Your task to perform on an android device: change notification settings in the gmail app Image 0: 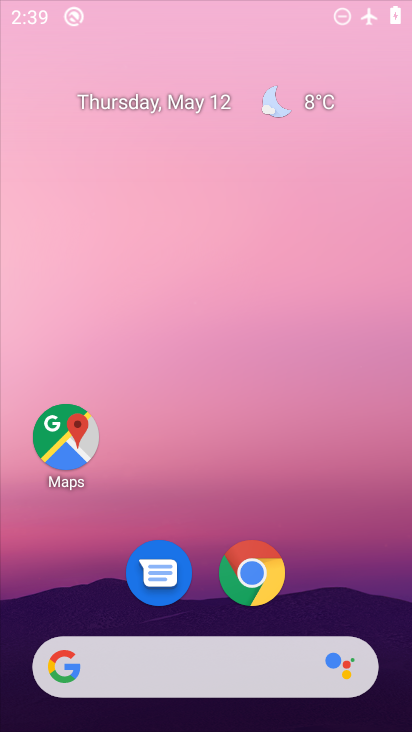
Step 0: click (101, 115)
Your task to perform on an android device: change notification settings in the gmail app Image 1: 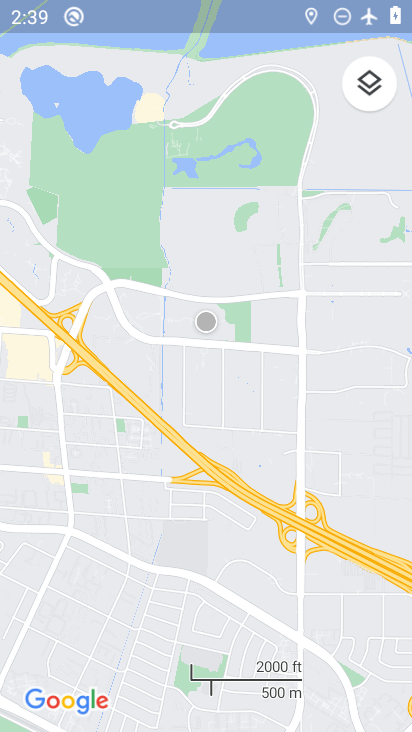
Step 1: press back button
Your task to perform on an android device: change notification settings in the gmail app Image 2: 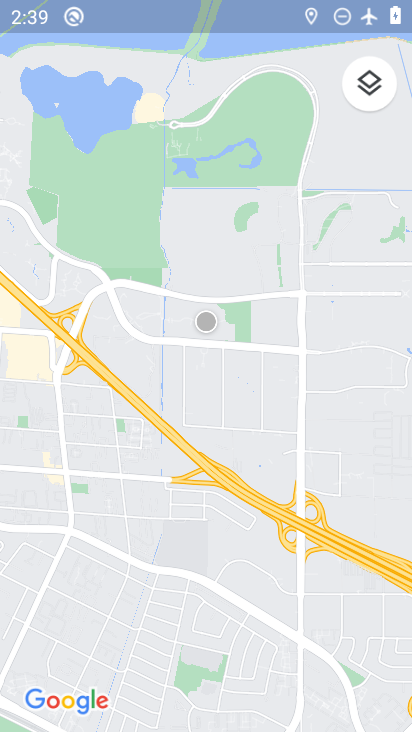
Step 2: press back button
Your task to perform on an android device: change notification settings in the gmail app Image 3: 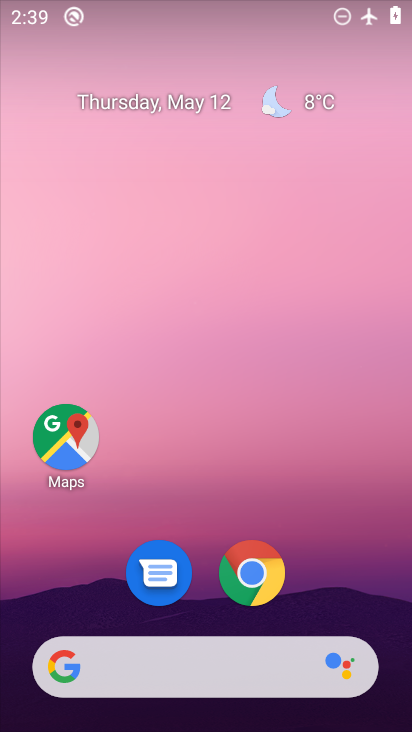
Step 3: drag from (355, 644) to (118, 175)
Your task to perform on an android device: change notification settings in the gmail app Image 4: 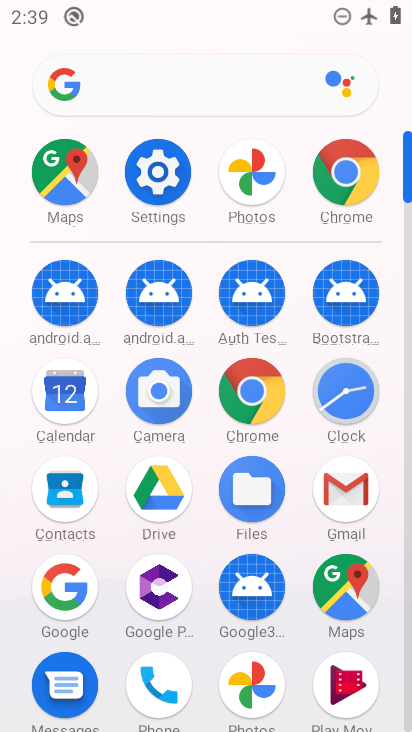
Step 4: click (152, 180)
Your task to perform on an android device: change notification settings in the gmail app Image 5: 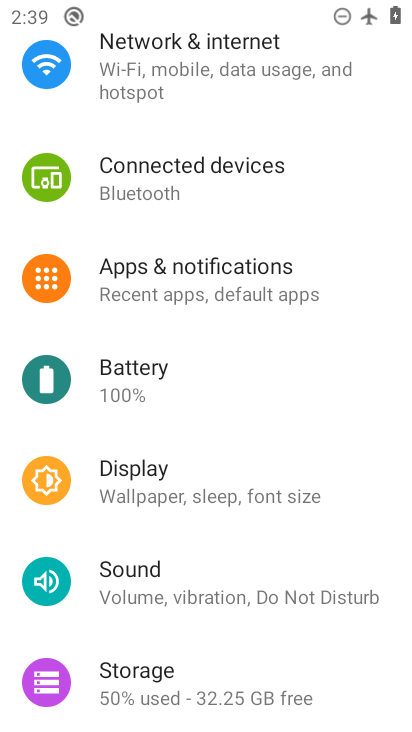
Step 5: click (181, 63)
Your task to perform on an android device: change notification settings in the gmail app Image 6: 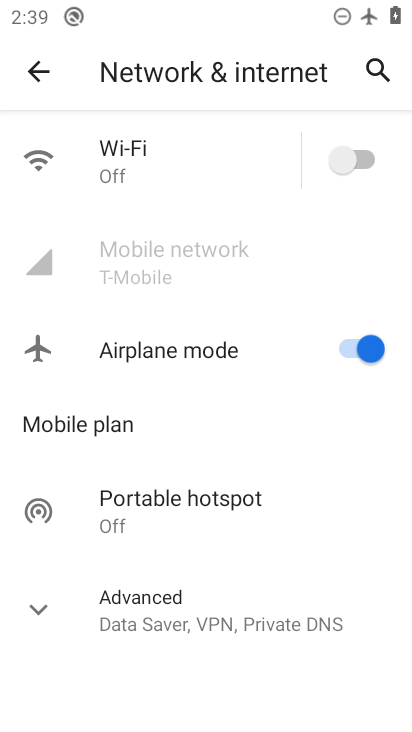
Step 6: click (361, 348)
Your task to perform on an android device: change notification settings in the gmail app Image 7: 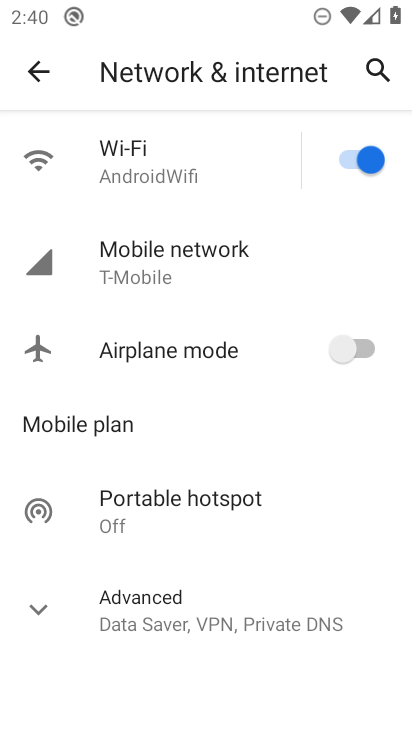
Step 7: press back button
Your task to perform on an android device: change notification settings in the gmail app Image 8: 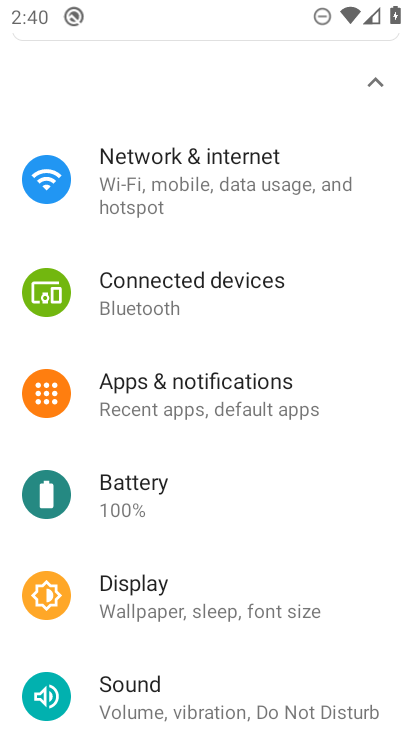
Step 8: click (169, 390)
Your task to perform on an android device: change notification settings in the gmail app Image 9: 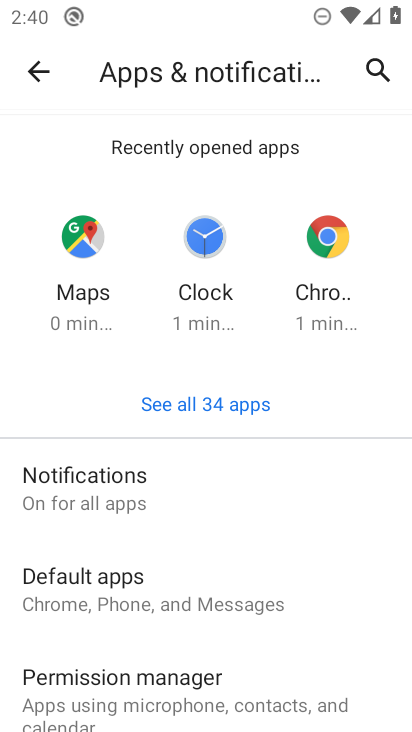
Step 9: click (102, 471)
Your task to perform on an android device: change notification settings in the gmail app Image 10: 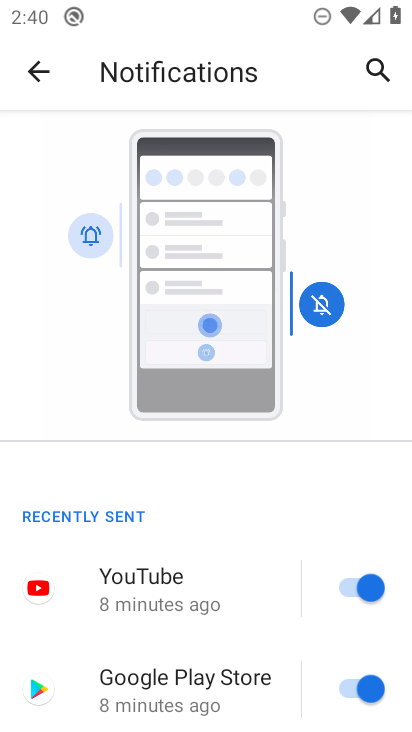
Step 10: drag from (218, 601) to (154, 132)
Your task to perform on an android device: change notification settings in the gmail app Image 11: 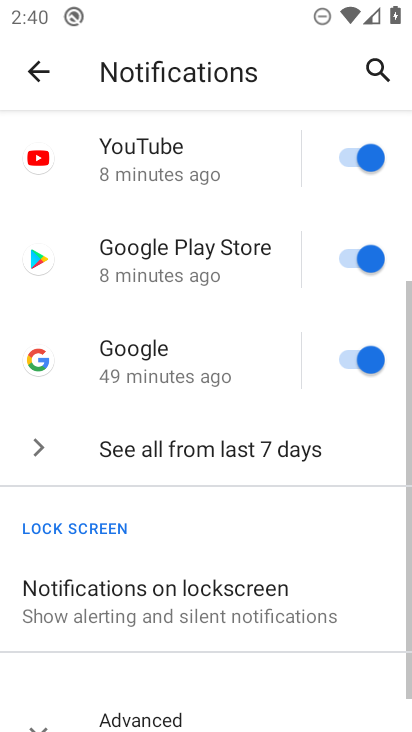
Step 11: drag from (250, 479) to (241, 208)
Your task to perform on an android device: change notification settings in the gmail app Image 12: 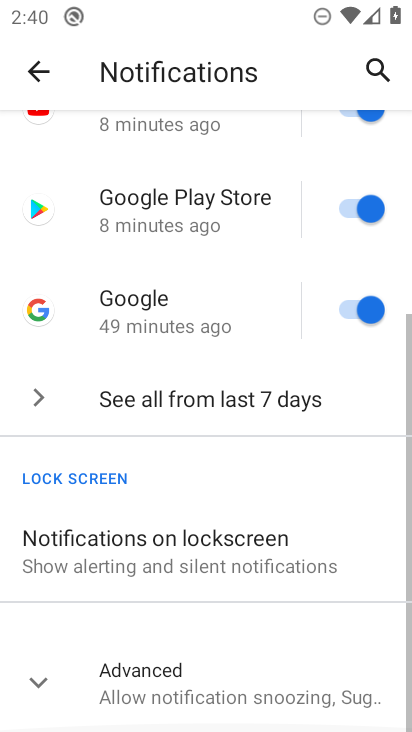
Step 12: drag from (286, 488) to (254, 183)
Your task to perform on an android device: change notification settings in the gmail app Image 13: 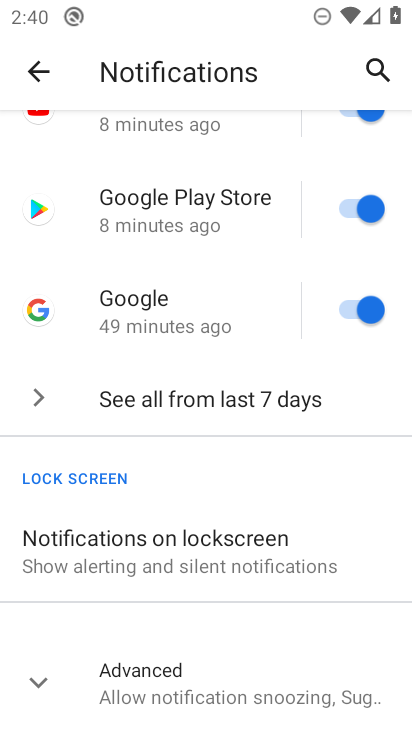
Step 13: drag from (223, 578) to (140, 170)
Your task to perform on an android device: change notification settings in the gmail app Image 14: 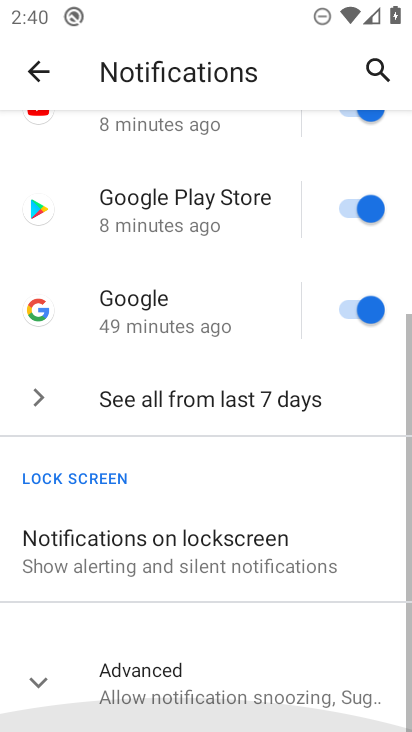
Step 14: drag from (207, 533) to (123, 67)
Your task to perform on an android device: change notification settings in the gmail app Image 15: 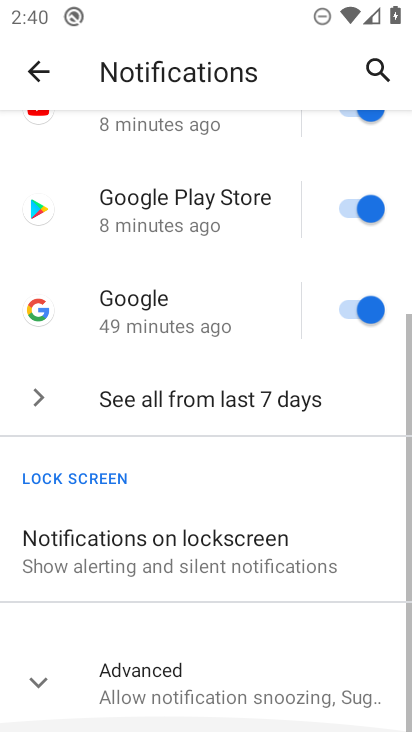
Step 15: drag from (227, 589) to (155, 92)
Your task to perform on an android device: change notification settings in the gmail app Image 16: 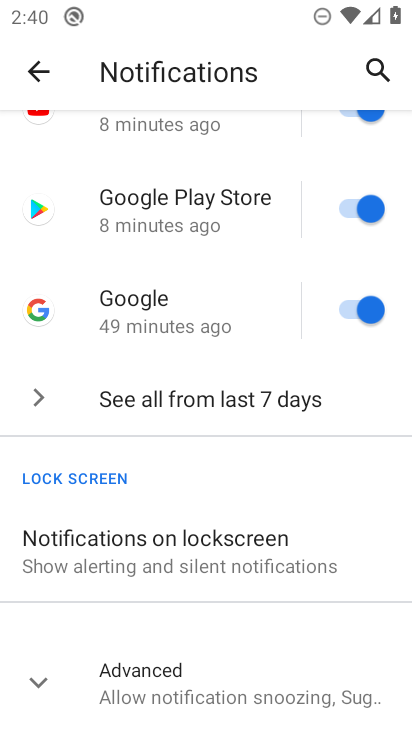
Step 16: click (181, 696)
Your task to perform on an android device: change notification settings in the gmail app Image 17: 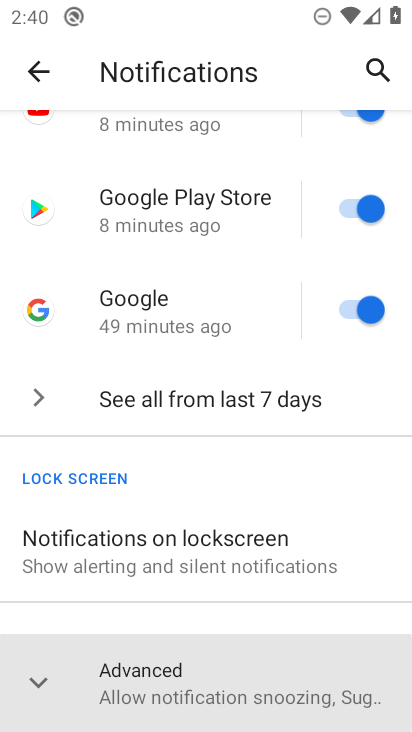
Step 17: click (183, 693)
Your task to perform on an android device: change notification settings in the gmail app Image 18: 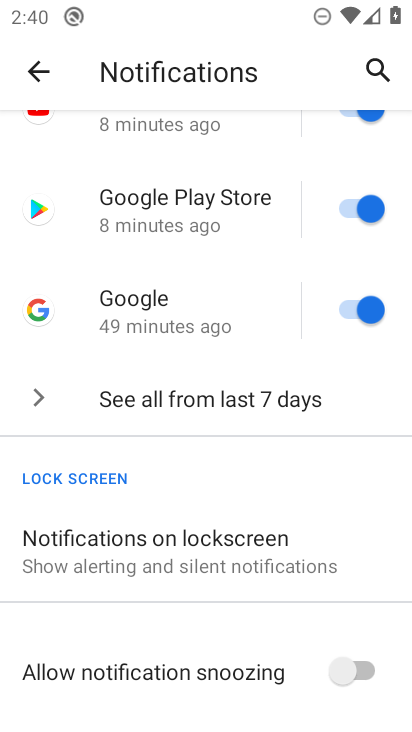
Step 18: drag from (321, 699) to (225, 226)
Your task to perform on an android device: change notification settings in the gmail app Image 19: 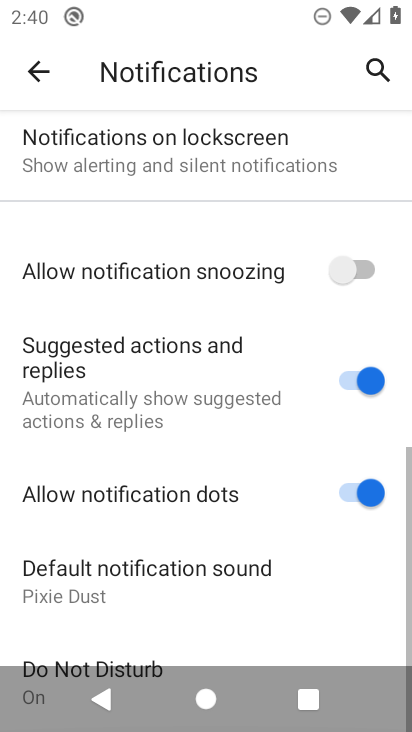
Step 19: drag from (228, 566) to (133, 148)
Your task to perform on an android device: change notification settings in the gmail app Image 20: 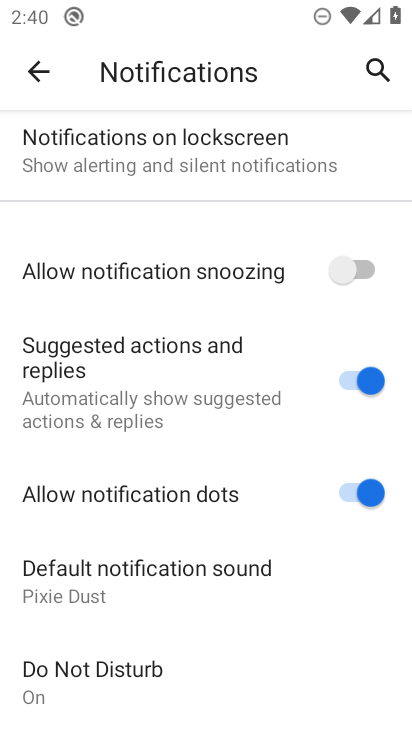
Step 20: click (346, 260)
Your task to perform on an android device: change notification settings in the gmail app Image 21: 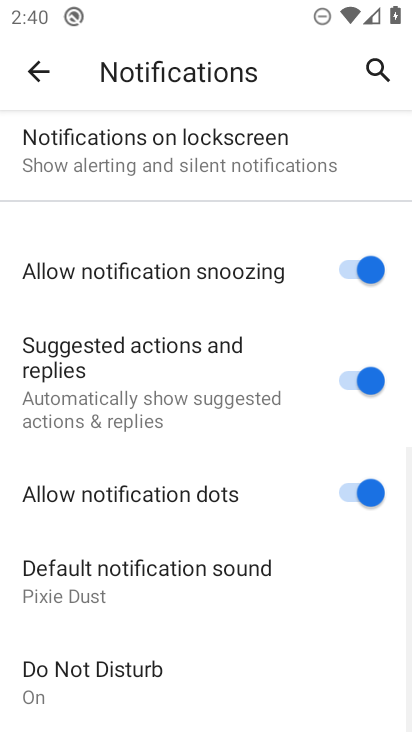
Step 21: click (360, 499)
Your task to perform on an android device: change notification settings in the gmail app Image 22: 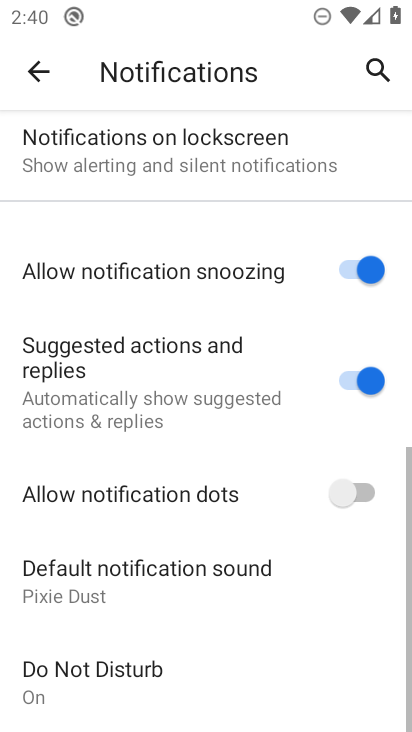
Step 22: click (360, 499)
Your task to perform on an android device: change notification settings in the gmail app Image 23: 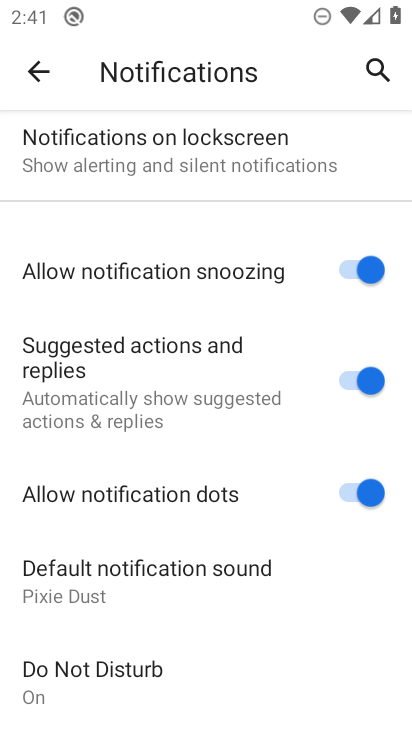
Step 23: click (368, 485)
Your task to perform on an android device: change notification settings in the gmail app Image 24: 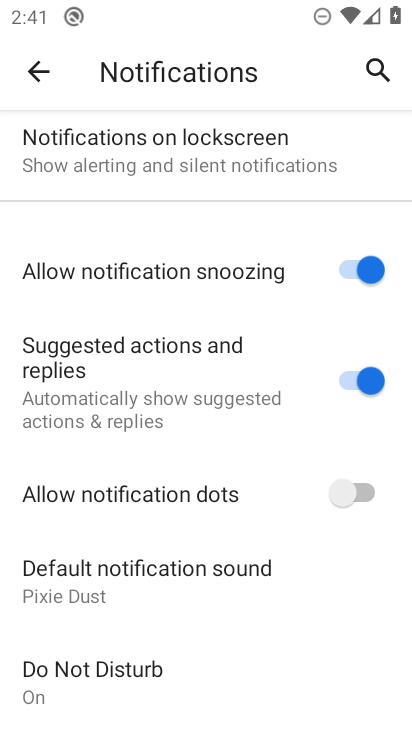
Step 24: task complete